Your task to perform on an android device: turn on sleep mode Image 0: 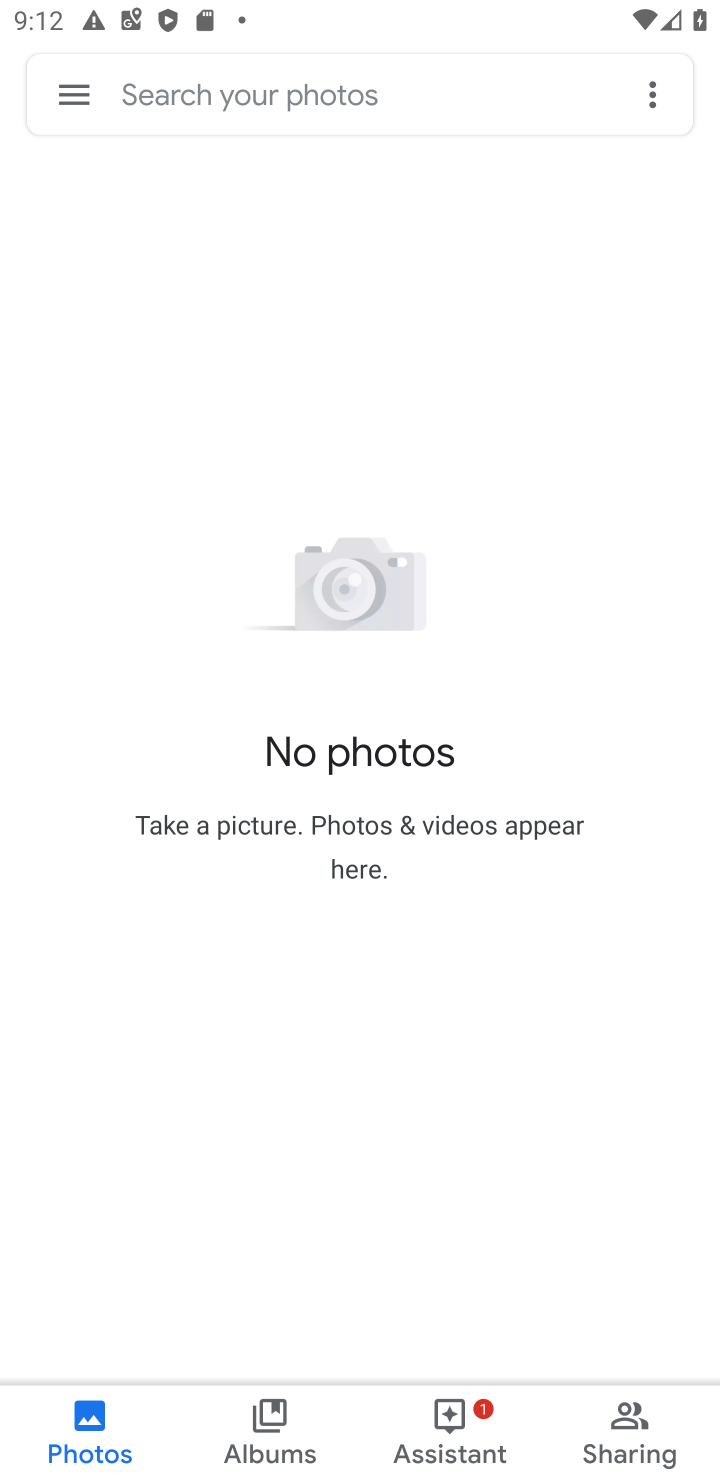
Step 0: press home button
Your task to perform on an android device: turn on sleep mode Image 1: 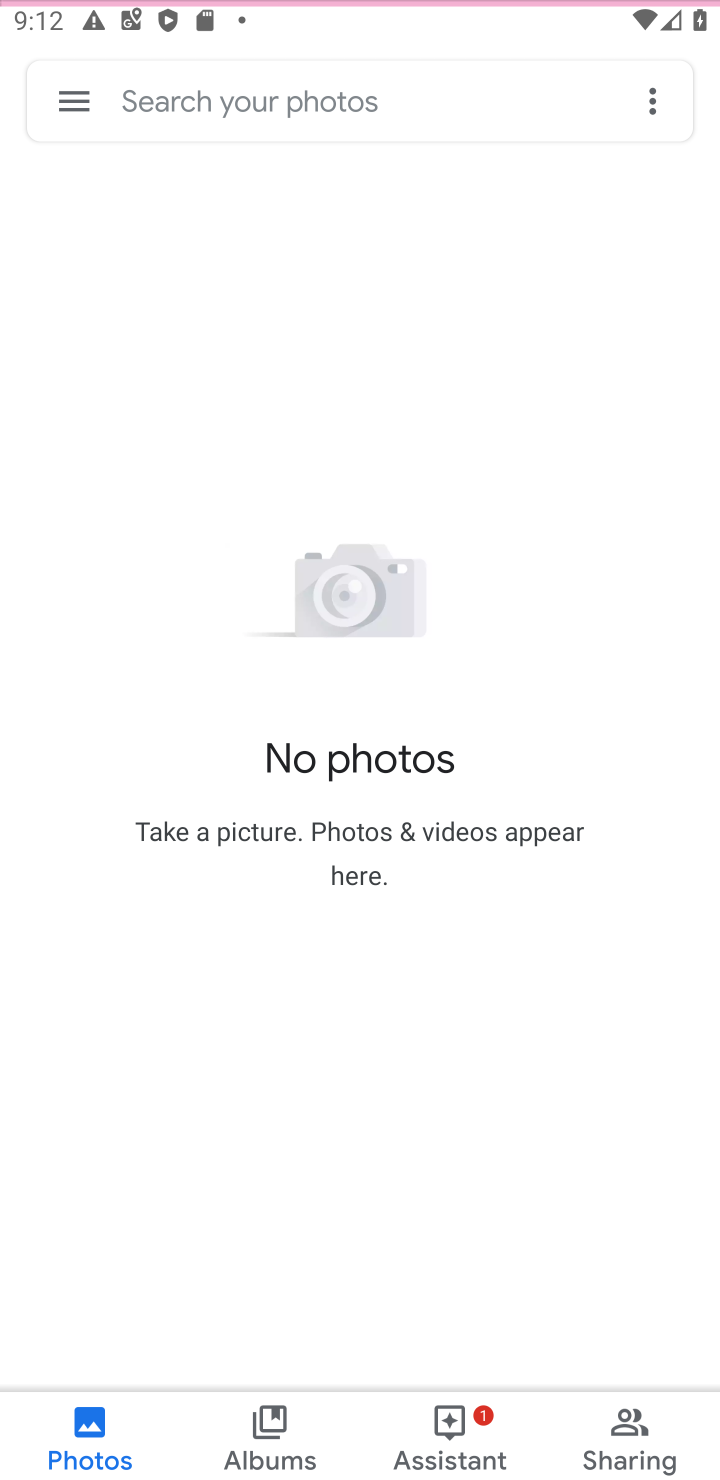
Step 1: drag from (638, 12) to (534, 1310)
Your task to perform on an android device: turn on sleep mode Image 2: 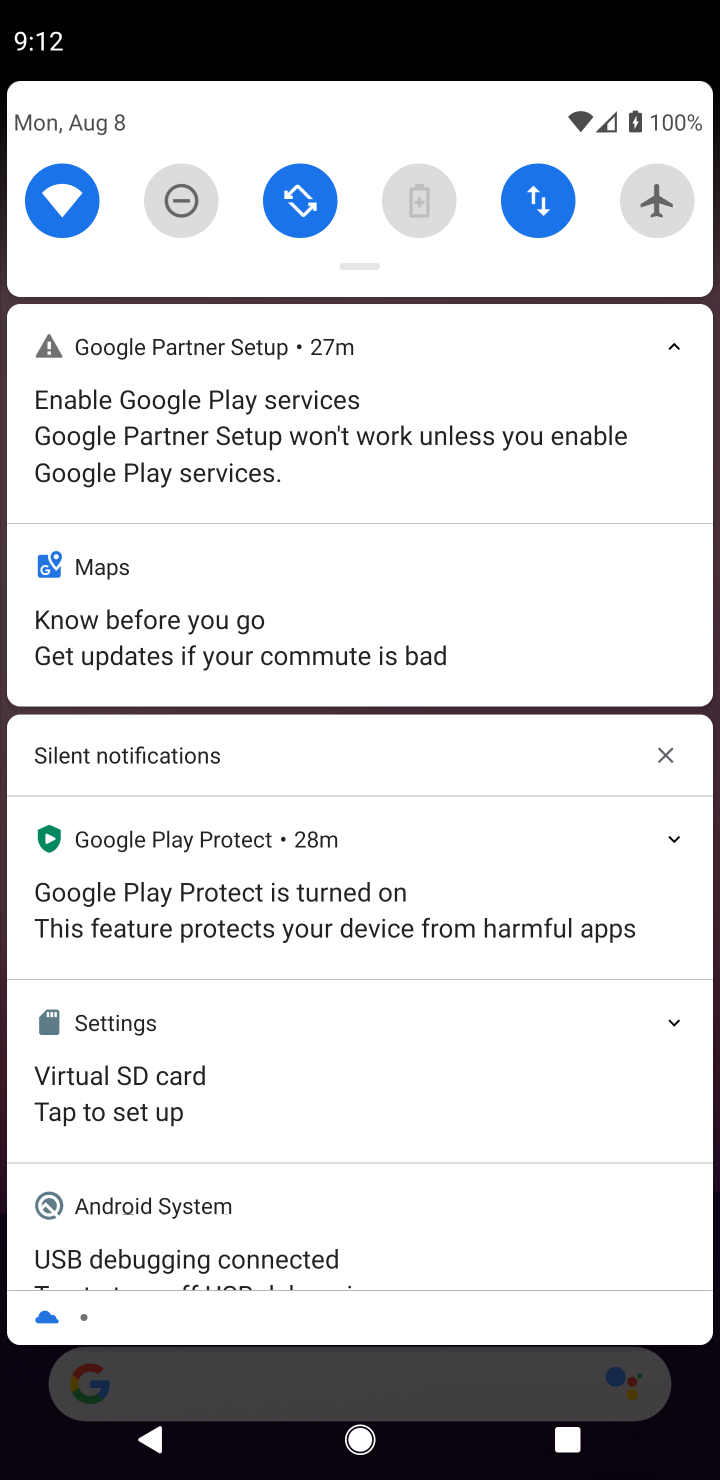
Step 2: drag from (354, 266) to (417, 1223)
Your task to perform on an android device: turn on sleep mode Image 3: 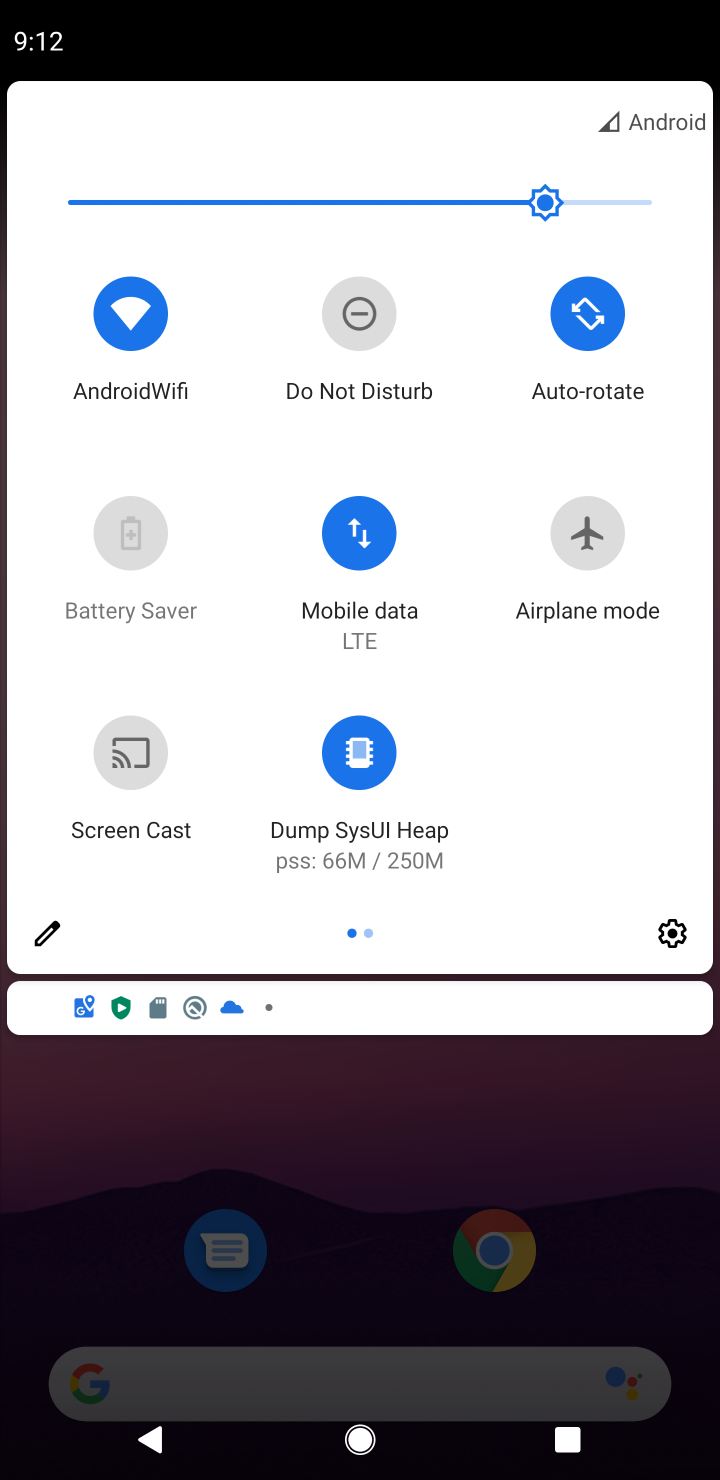
Step 3: click (56, 939)
Your task to perform on an android device: turn on sleep mode Image 4: 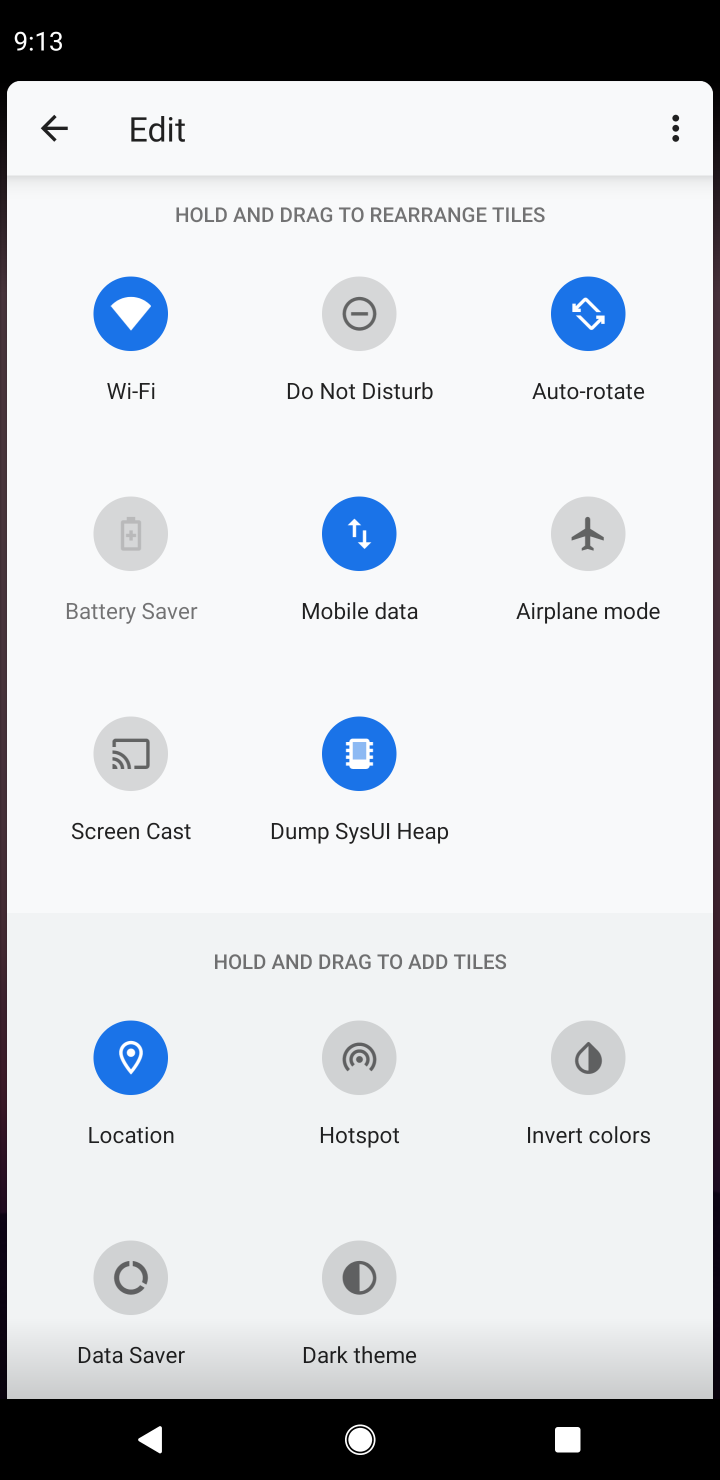
Step 4: task complete